Your task to perform on an android device: check android version Image 0: 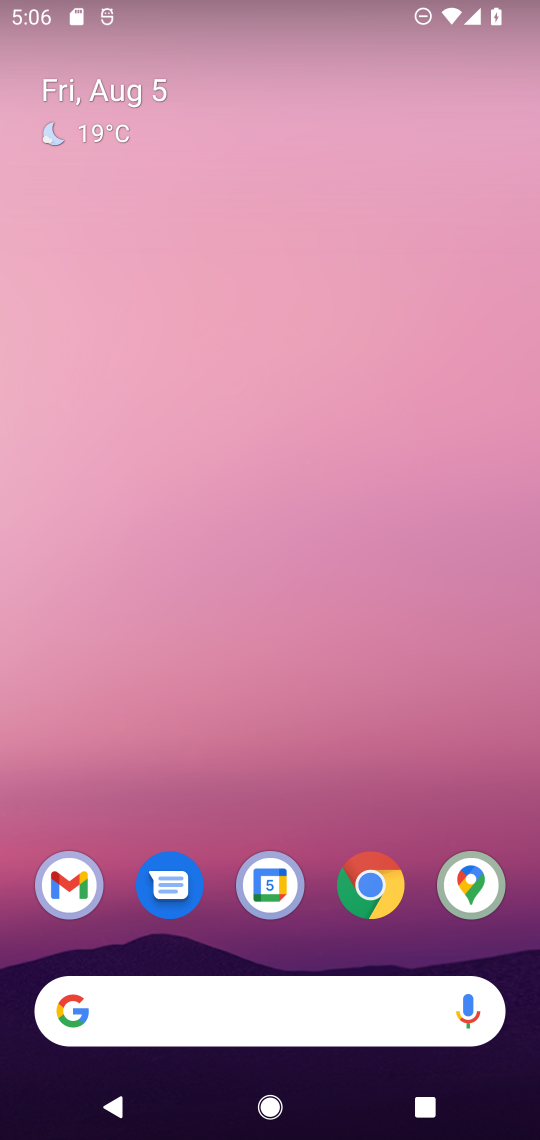
Step 0: drag from (302, 965) to (246, 75)
Your task to perform on an android device: check android version Image 1: 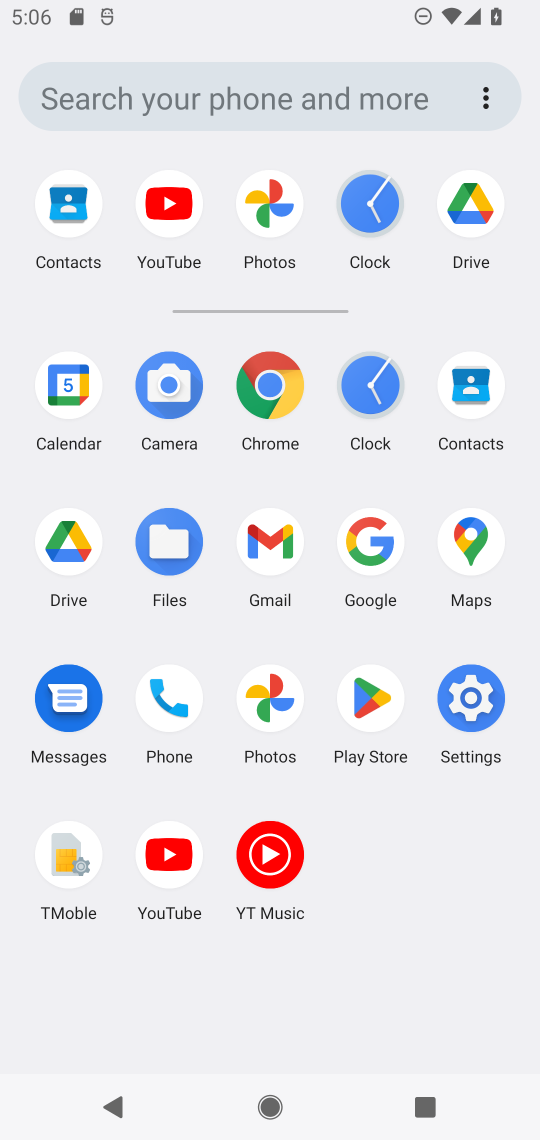
Step 1: click (477, 690)
Your task to perform on an android device: check android version Image 2: 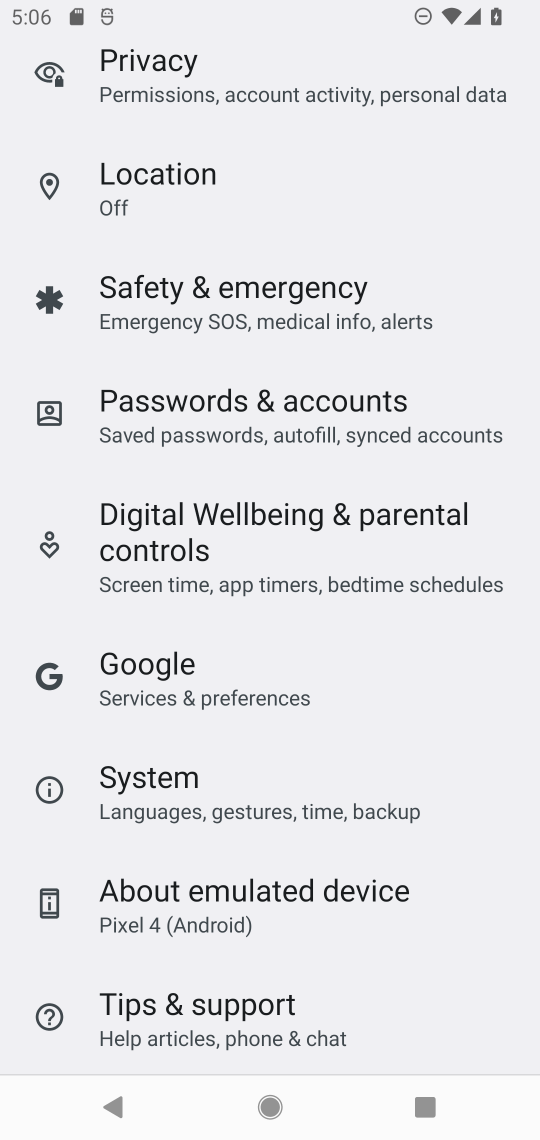
Step 2: drag from (200, 942) to (179, 521)
Your task to perform on an android device: check android version Image 3: 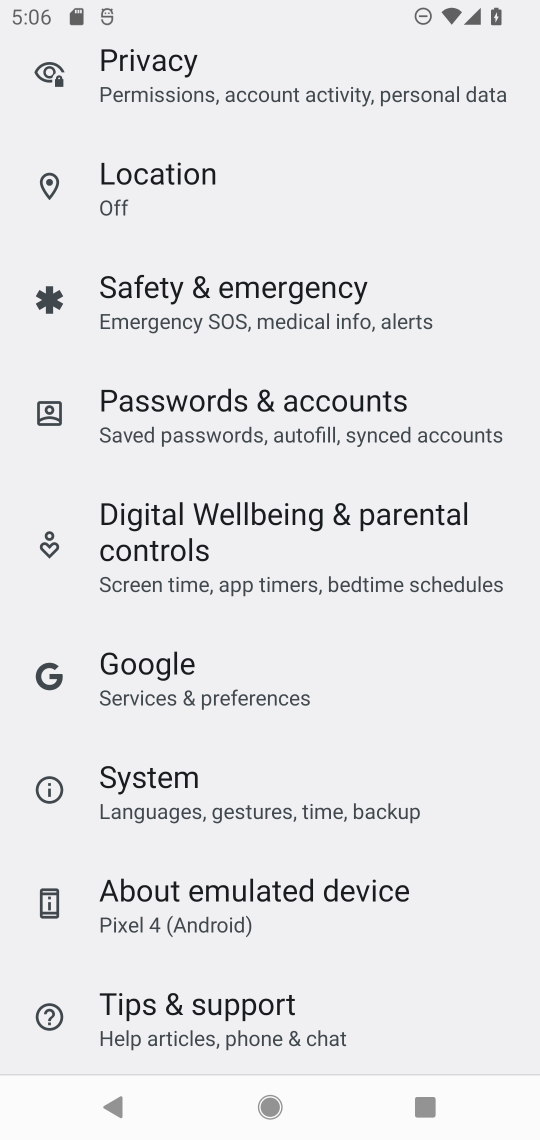
Step 3: click (219, 892)
Your task to perform on an android device: check android version Image 4: 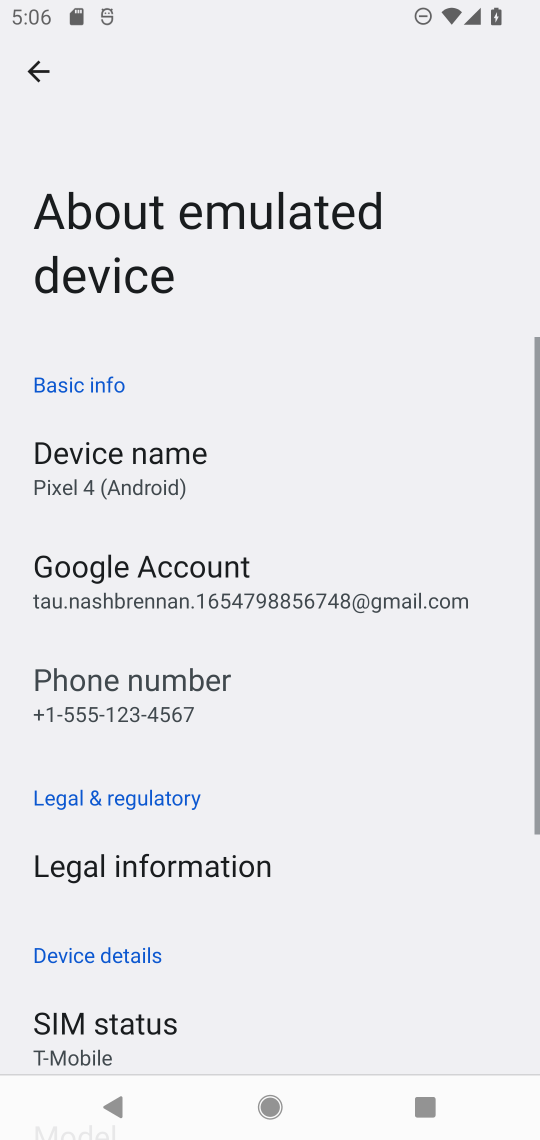
Step 4: drag from (134, 989) to (127, 712)
Your task to perform on an android device: check android version Image 5: 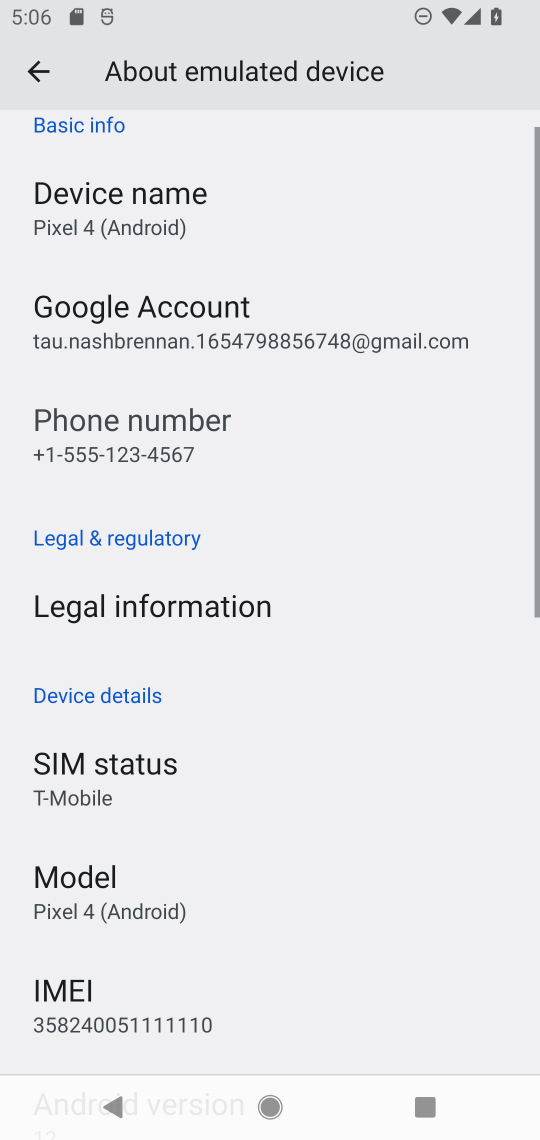
Step 5: drag from (178, 993) to (167, 633)
Your task to perform on an android device: check android version Image 6: 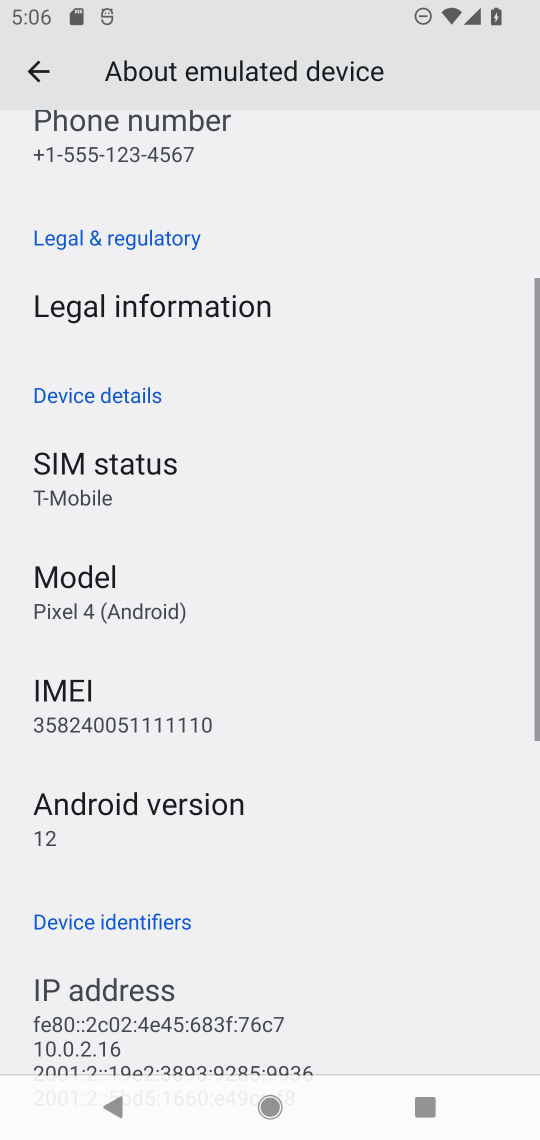
Step 6: click (142, 795)
Your task to perform on an android device: check android version Image 7: 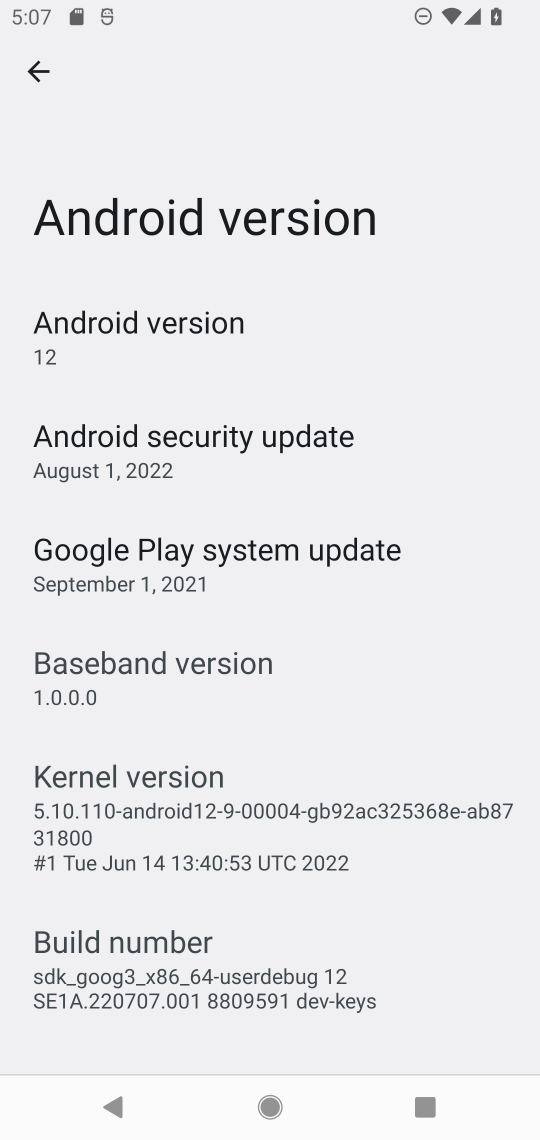
Step 7: click (111, 314)
Your task to perform on an android device: check android version Image 8: 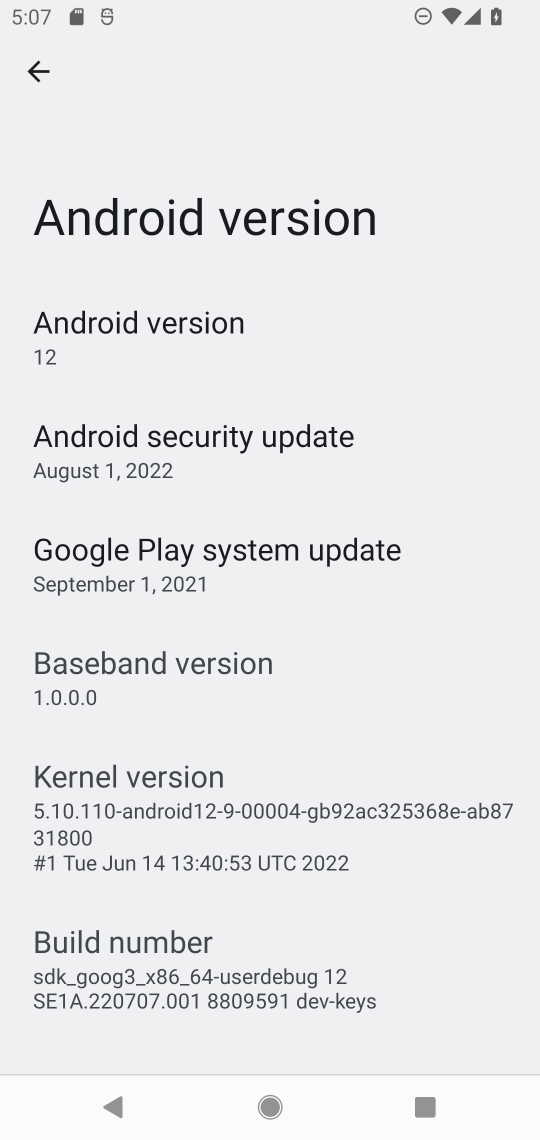
Step 8: task complete